Your task to perform on an android device: toggle sleep mode Image 0: 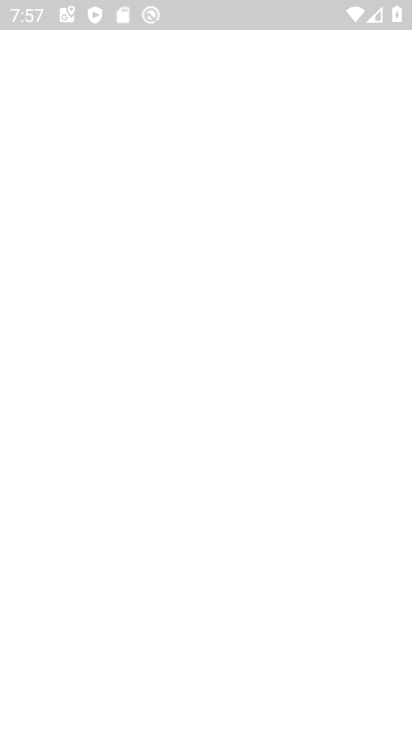
Step 0: press home button
Your task to perform on an android device: toggle sleep mode Image 1: 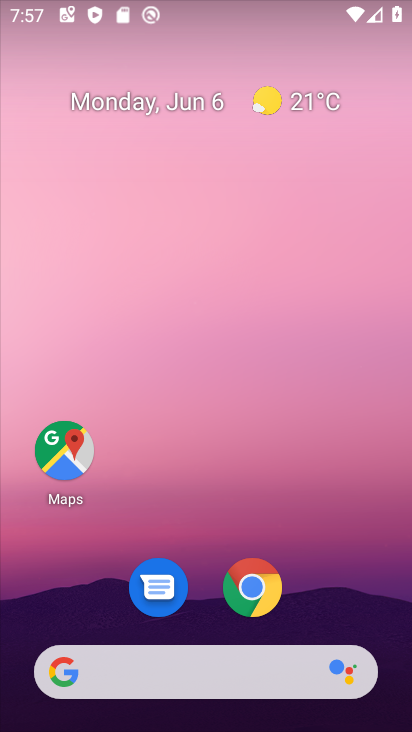
Step 1: drag from (269, 682) to (256, 4)
Your task to perform on an android device: toggle sleep mode Image 2: 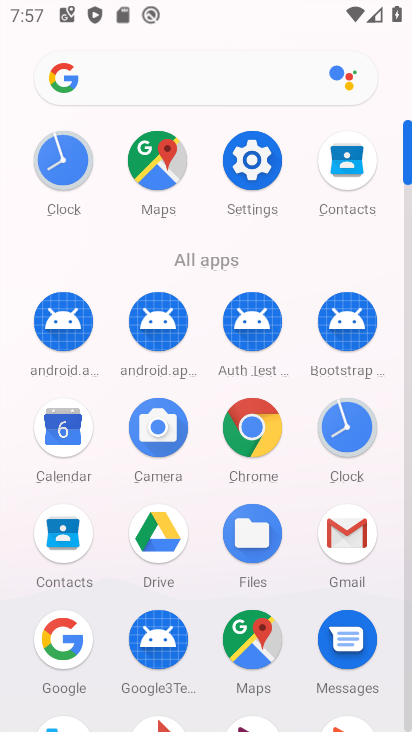
Step 2: click (261, 156)
Your task to perform on an android device: toggle sleep mode Image 3: 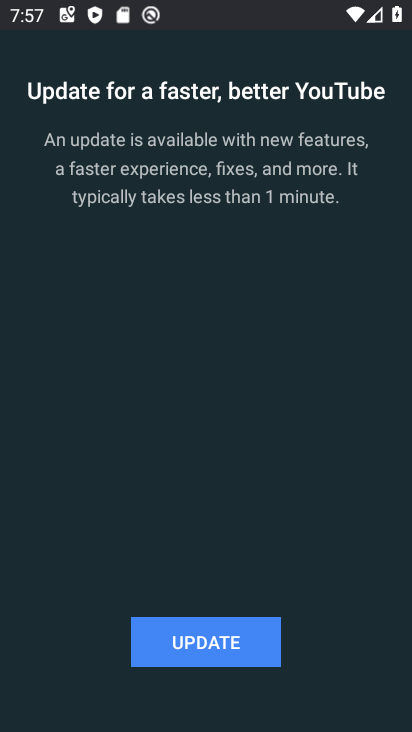
Step 3: press home button
Your task to perform on an android device: toggle sleep mode Image 4: 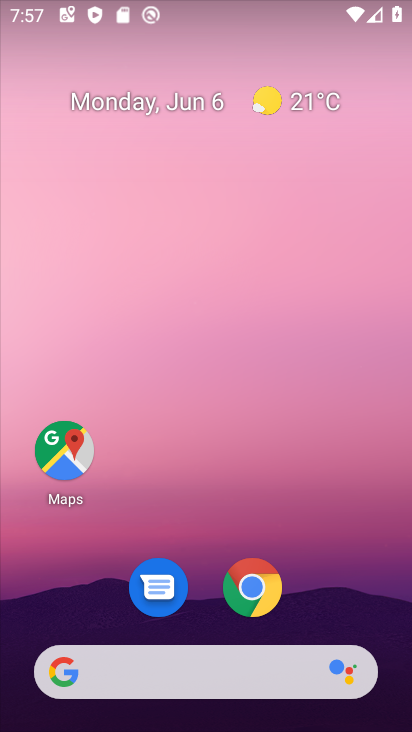
Step 4: drag from (235, 715) to (288, 41)
Your task to perform on an android device: toggle sleep mode Image 5: 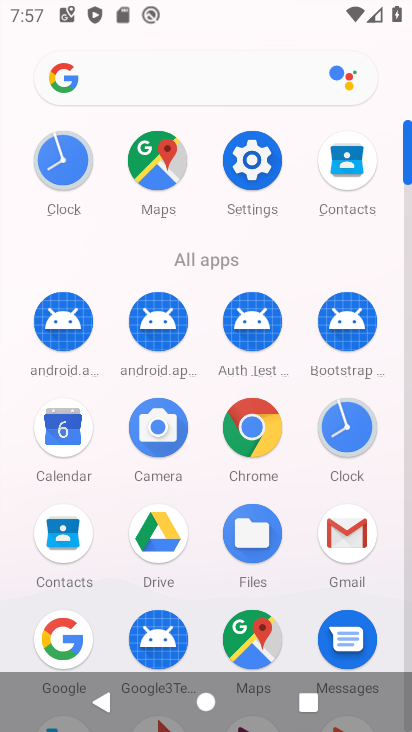
Step 5: click (255, 175)
Your task to perform on an android device: toggle sleep mode Image 6: 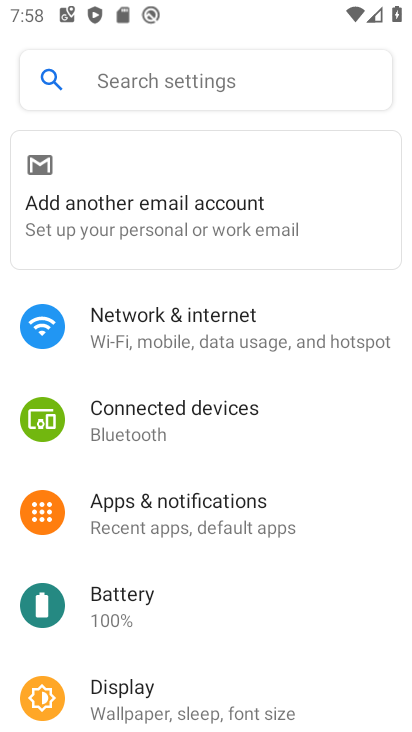
Step 6: click (280, 714)
Your task to perform on an android device: toggle sleep mode Image 7: 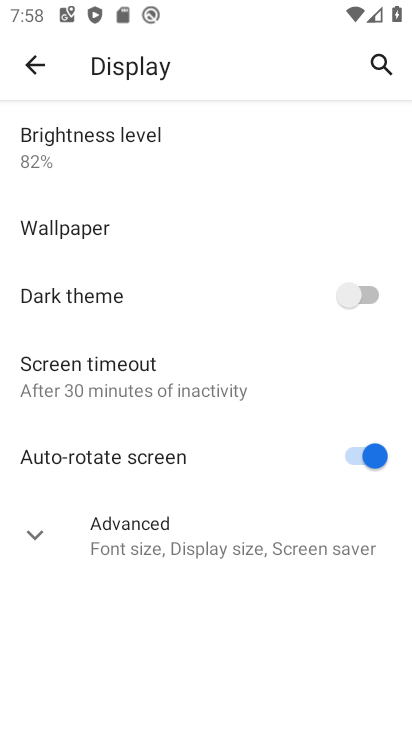
Step 7: click (237, 556)
Your task to perform on an android device: toggle sleep mode Image 8: 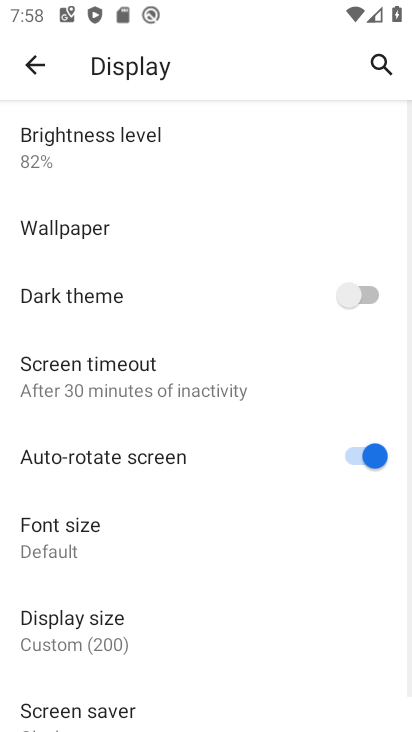
Step 8: task complete